Your task to perform on an android device: Open Google Maps Image 0: 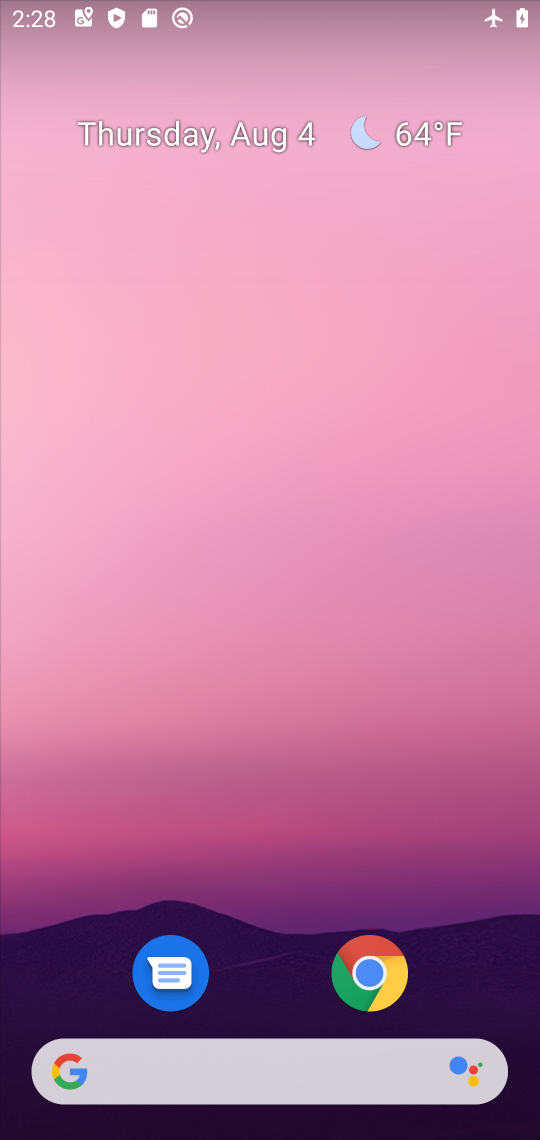
Step 0: drag from (306, 1028) to (490, 925)
Your task to perform on an android device: Open Google Maps Image 1: 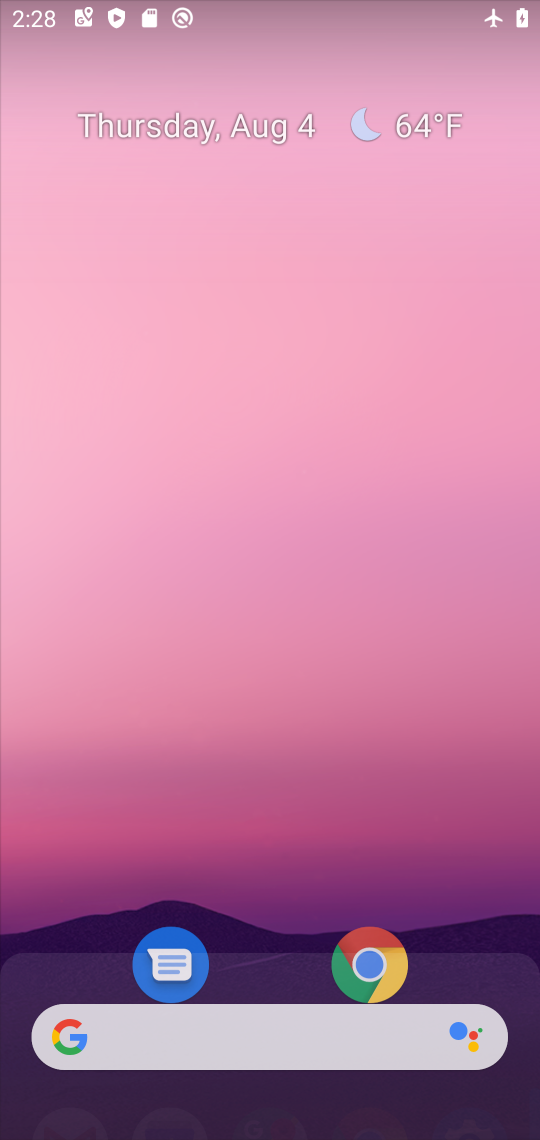
Step 1: click (69, 903)
Your task to perform on an android device: Open Google Maps Image 2: 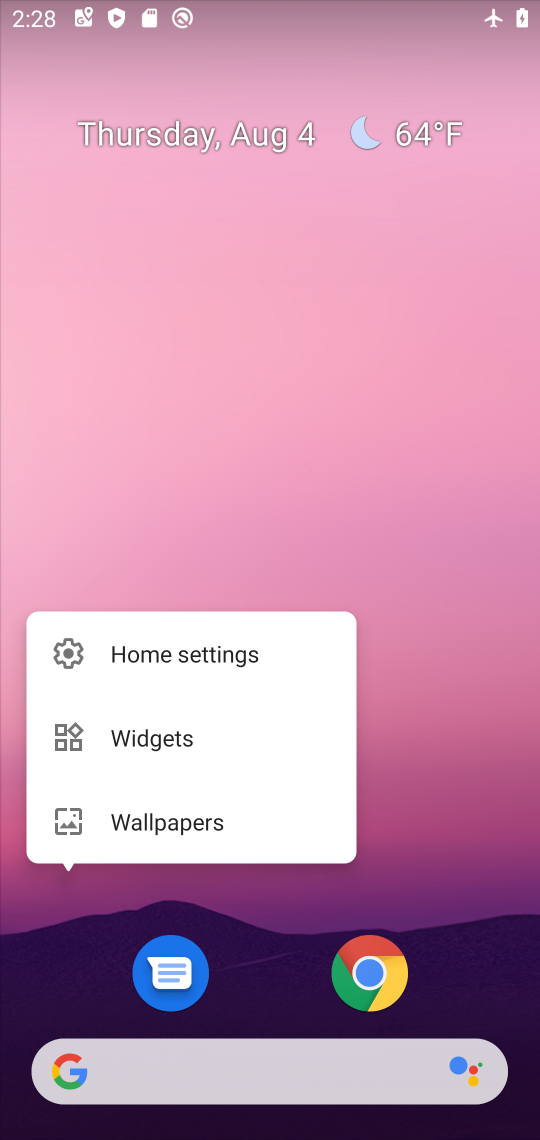
Step 2: click (257, 970)
Your task to perform on an android device: Open Google Maps Image 3: 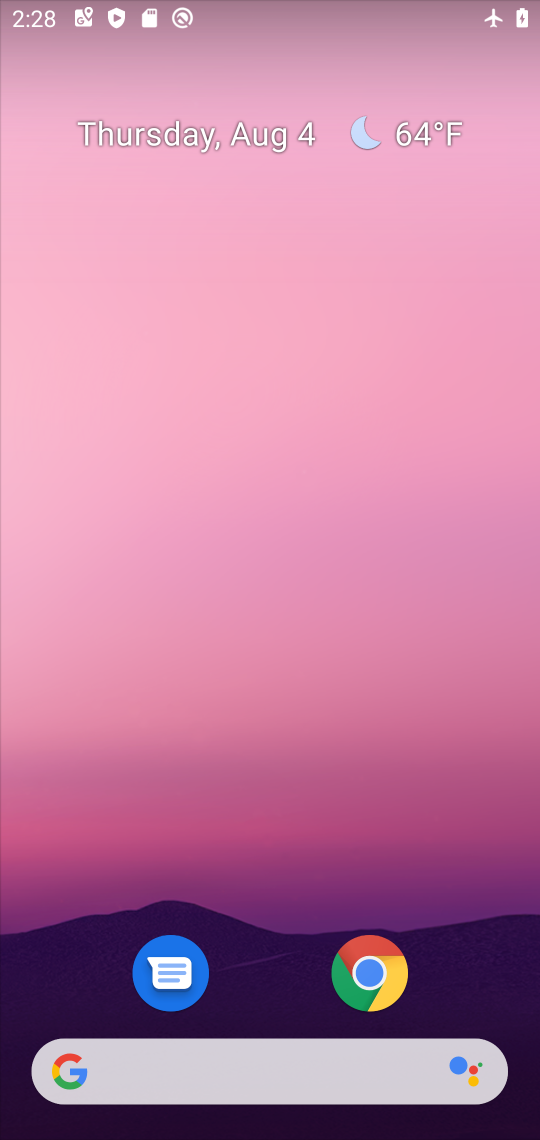
Step 3: drag from (285, 1014) to (167, 147)
Your task to perform on an android device: Open Google Maps Image 4: 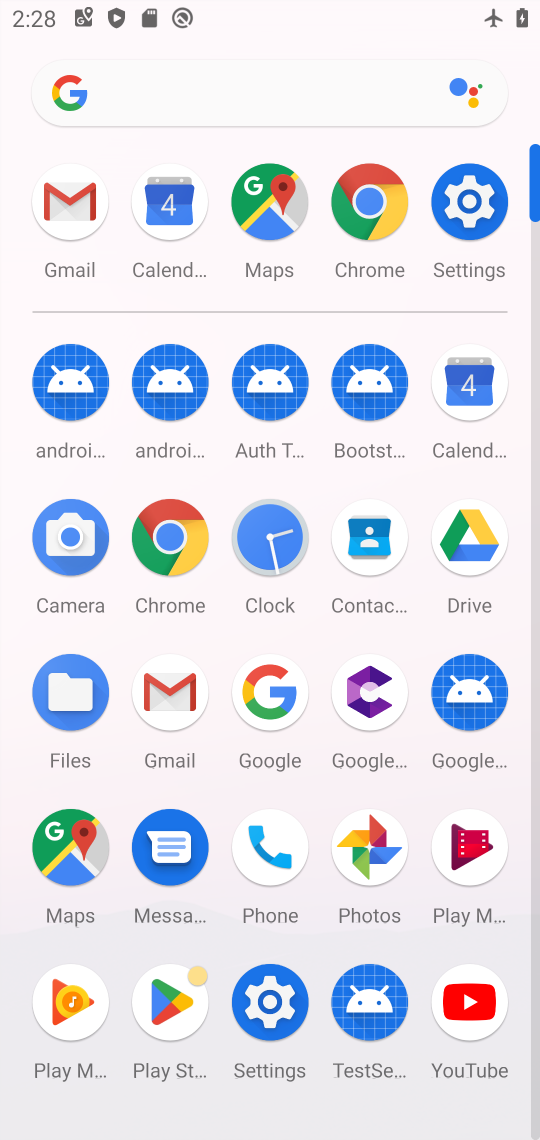
Step 4: click (114, 821)
Your task to perform on an android device: Open Google Maps Image 5: 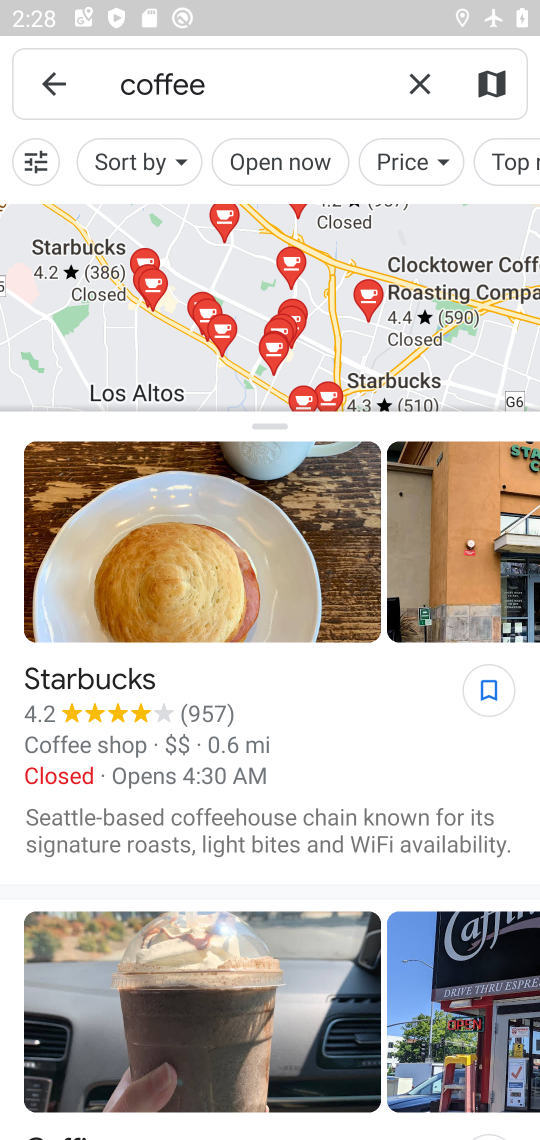
Step 5: click (53, 81)
Your task to perform on an android device: Open Google Maps Image 6: 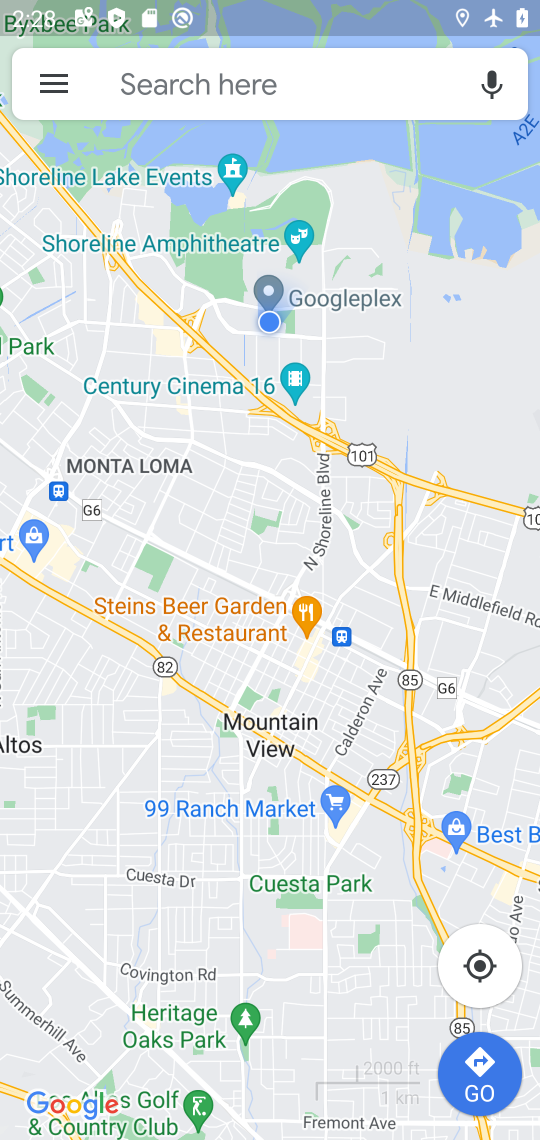
Step 6: task complete